Your task to perform on an android device: open chrome and create a bookmark for the current page Image 0: 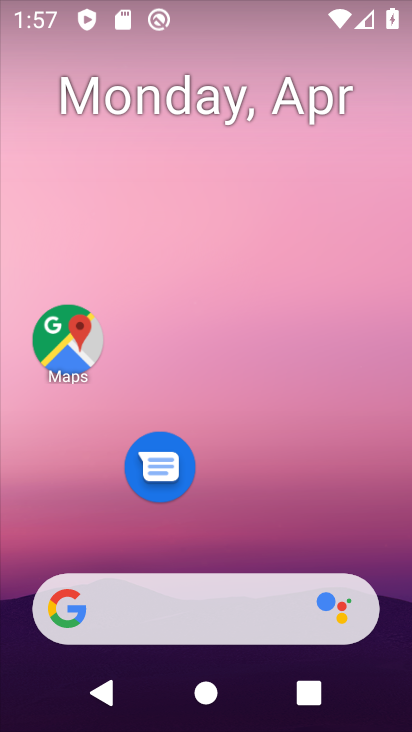
Step 0: drag from (246, 525) to (249, 136)
Your task to perform on an android device: open chrome and create a bookmark for the current page Image 1: 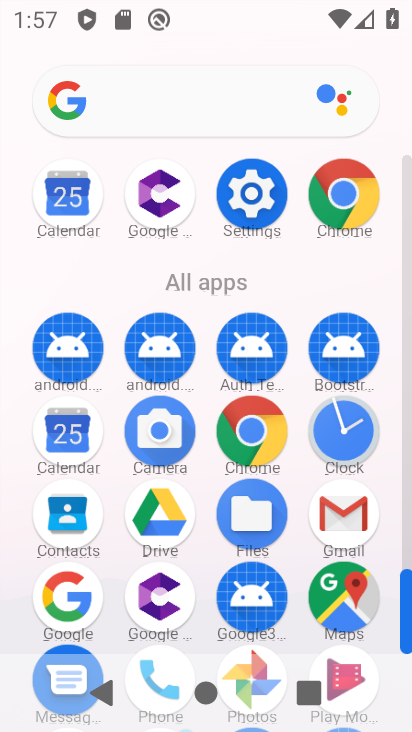
Step 1: click (338, 187)
Your task to perform on an android device: open chrome and create a bookmark for the current page Image 2: 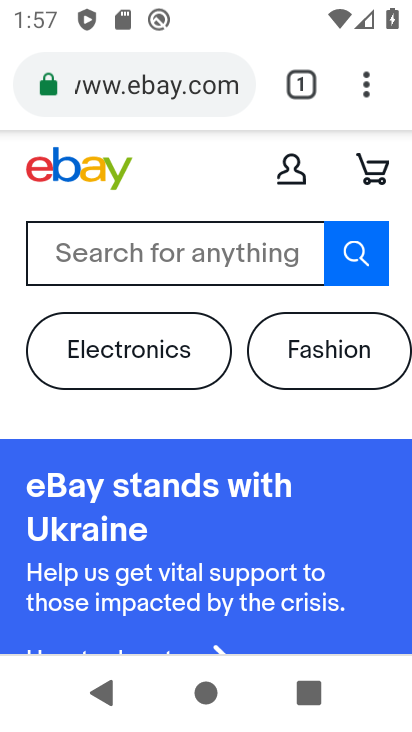
Step 2: click (359, 82)
Your task to perform on an android device: open chrome and create a bookmark for the current page Image 3: 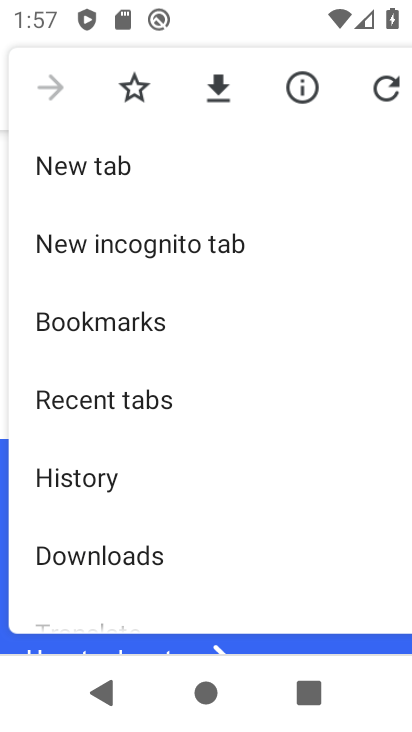
Step 3: click (150, 89)
Your task to perform on an android device: open chrome and create a bookmark for the current page Image 4: 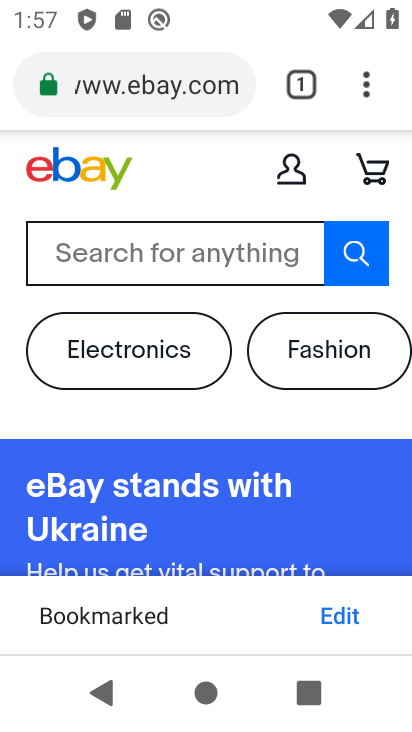
Step 4: task complete